Your task to perform on an android device: Open Reddit.com Image 0: 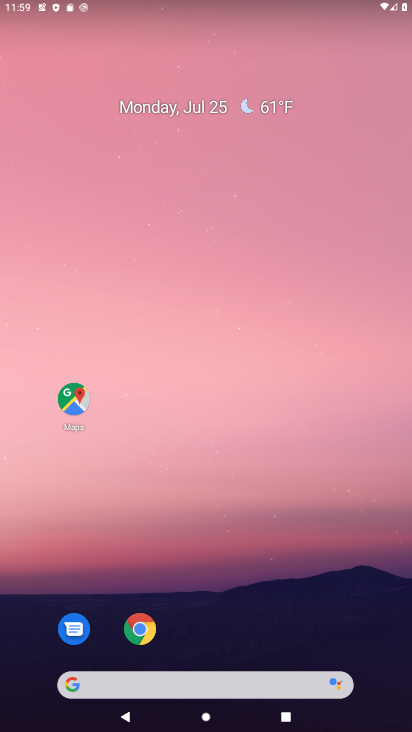
Step 0: click (146, 639)
Your task to perform on an android device: Open Reddit.com Image 1: 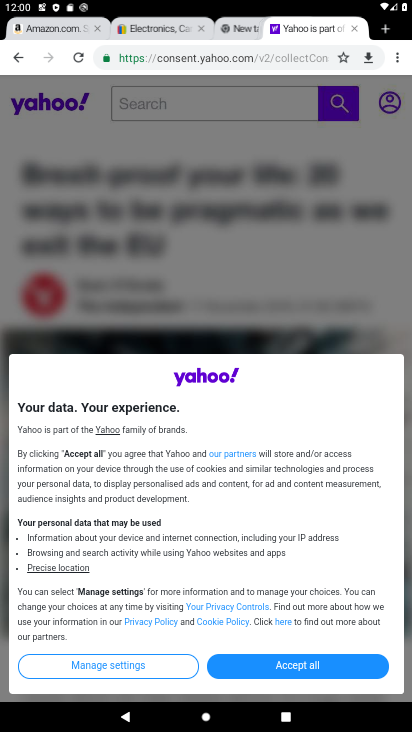
Step 1: click (379, 38)
Your task to perform on an android device: Open Reddit.com Image 2: 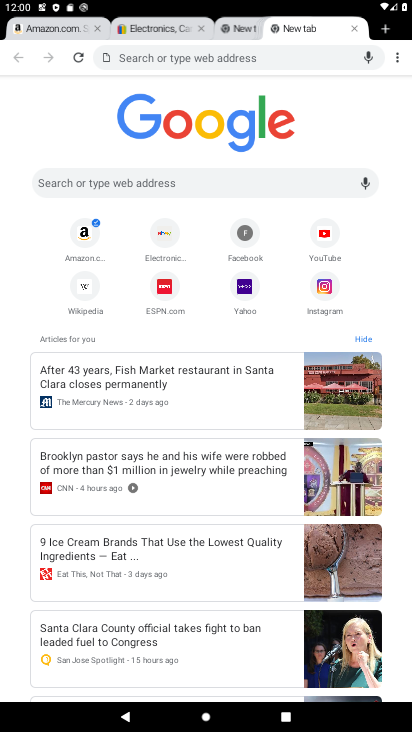
Step 2: click (144, 179)
Your task to perform on an android device: Open Reddit.com Image 3: 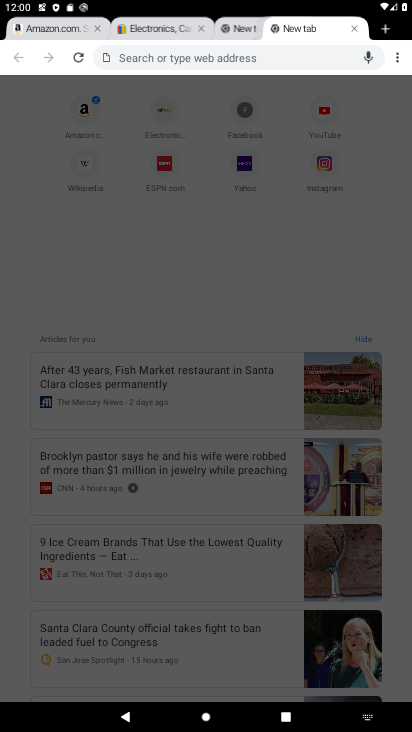
Step 3: type "Reddit.com"
Your task to perform on an android device: Open Reddit.com Image 4: 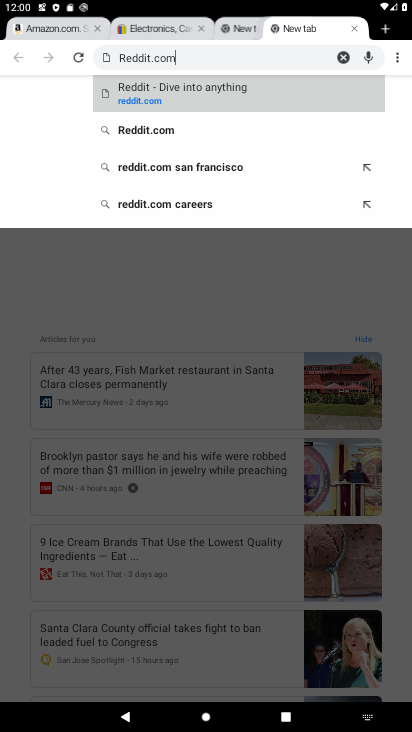
Step 4: type ""
Your task to perform on an android device: Open Reddit.com Image 5: 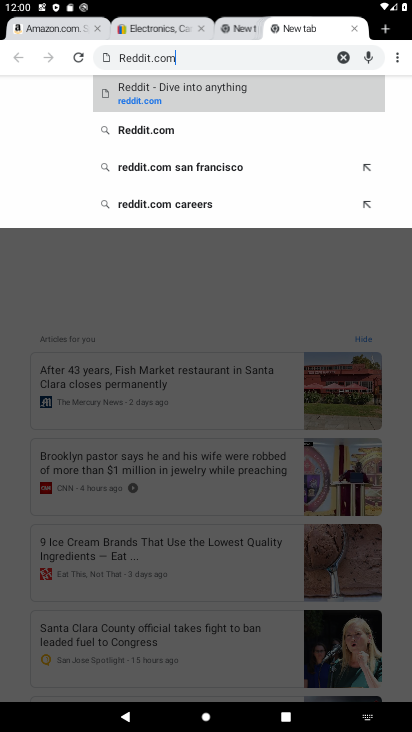
Step 5: click (172, 88)
Your task to perform on an android device: Open Reddit.com Image 6: 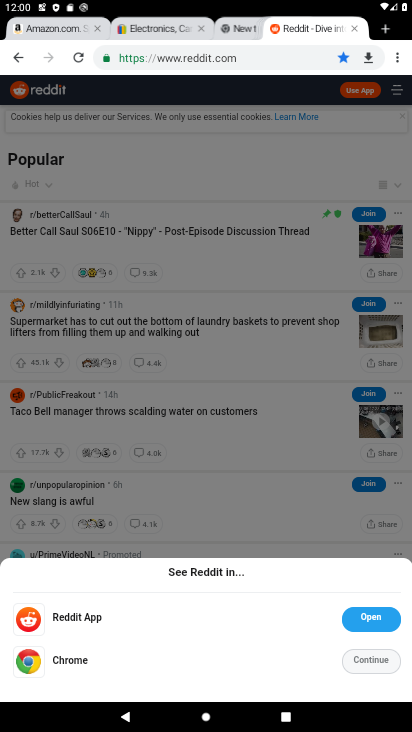
Step 6: task complete